Your task to perform on an android device: toggle priority inbox in the gmail app Image 0: 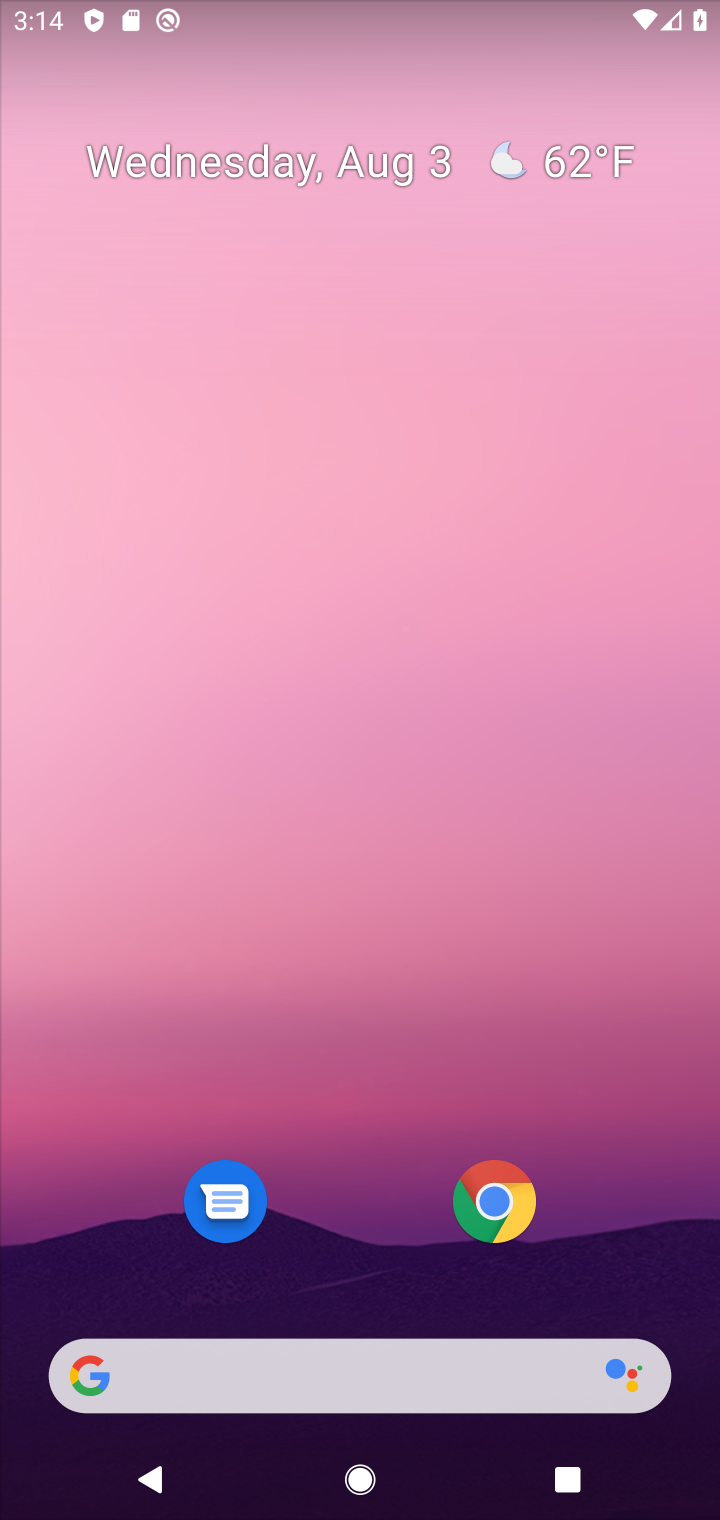
Step 0: drag from (353, 1257) to (307, 306)
Your task to perform on an android device: toggle priority inbox in the gmail app Image 1: 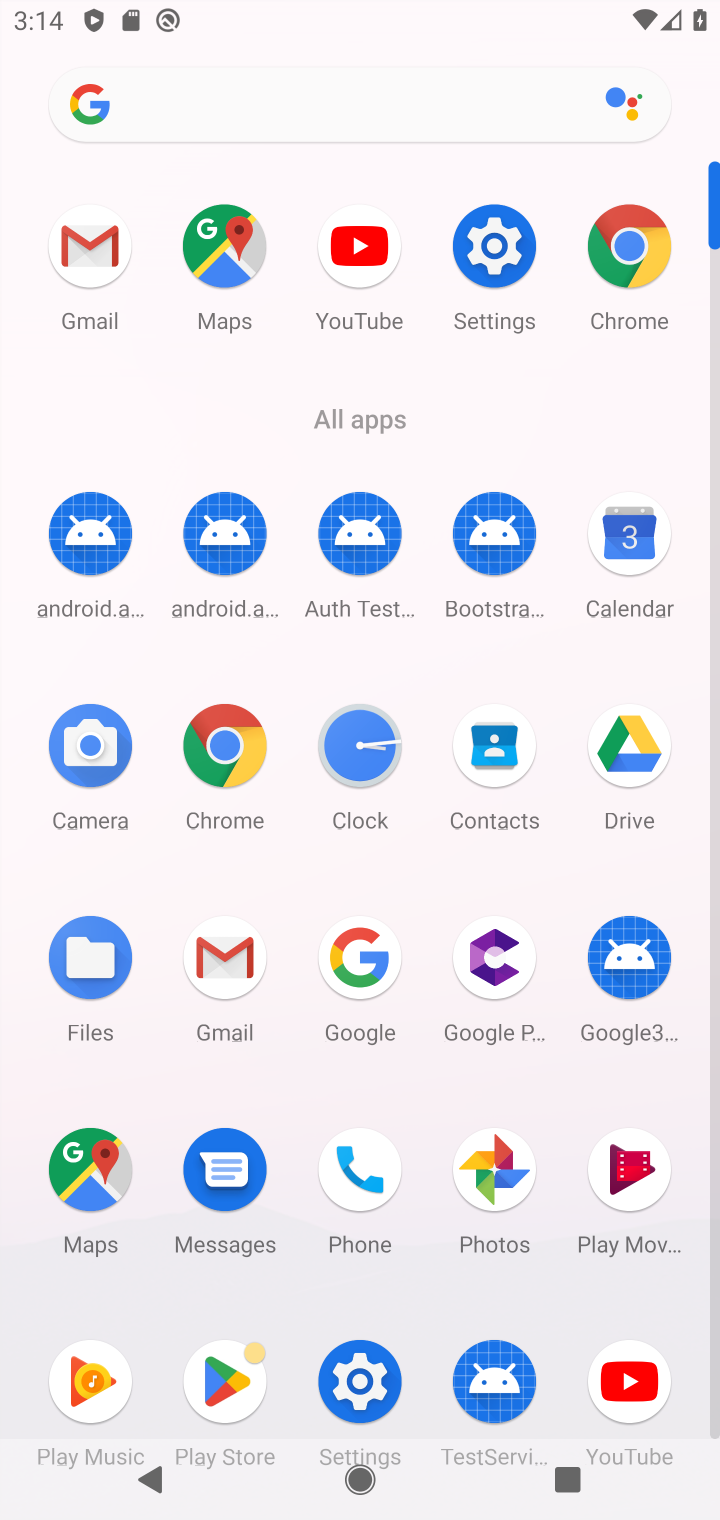
Step 1: click (231, 955)
Your task to perform on an android device: toggle priority inbox in the gmail app Image 2: 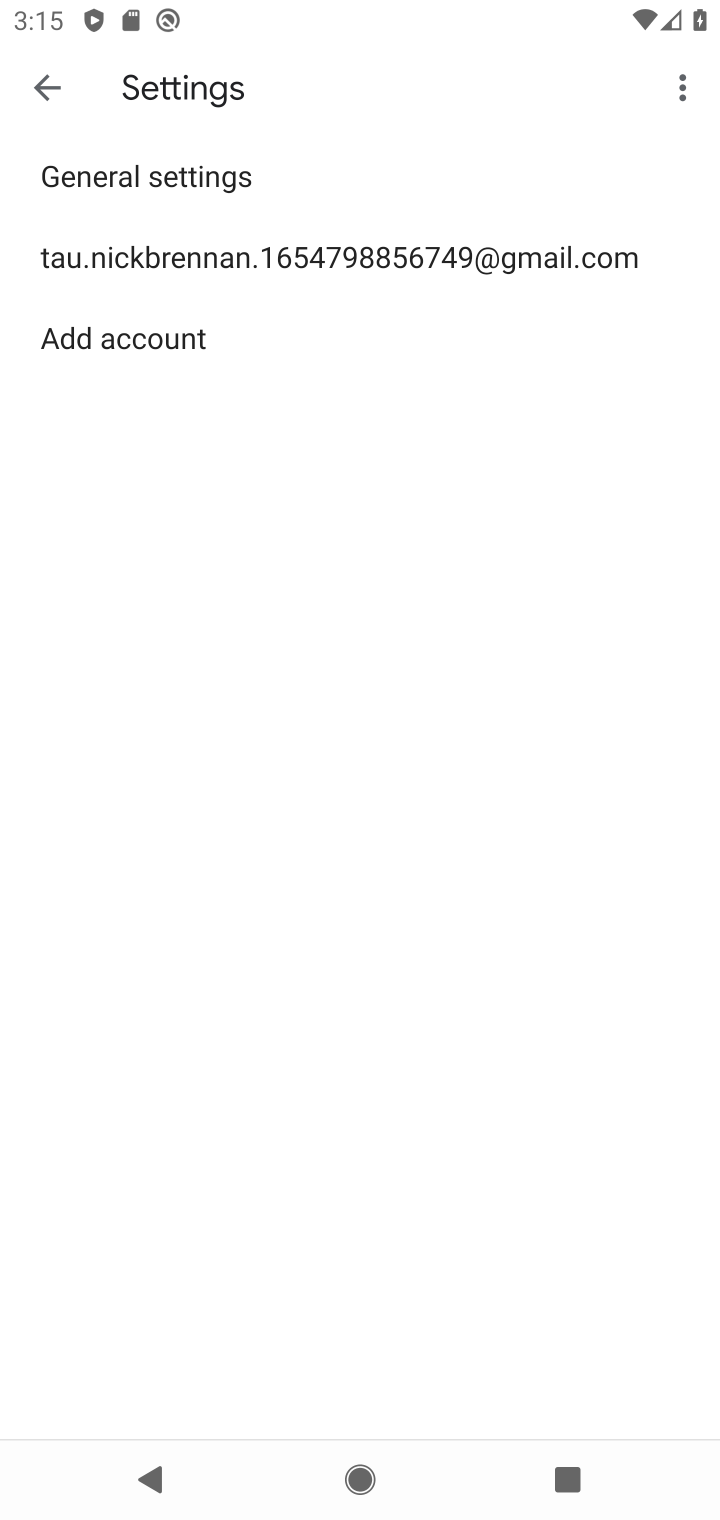
Step 2: click (161, 268)
Your task to perform on an android device: toggle priority inbox in the gmail app Image 3: 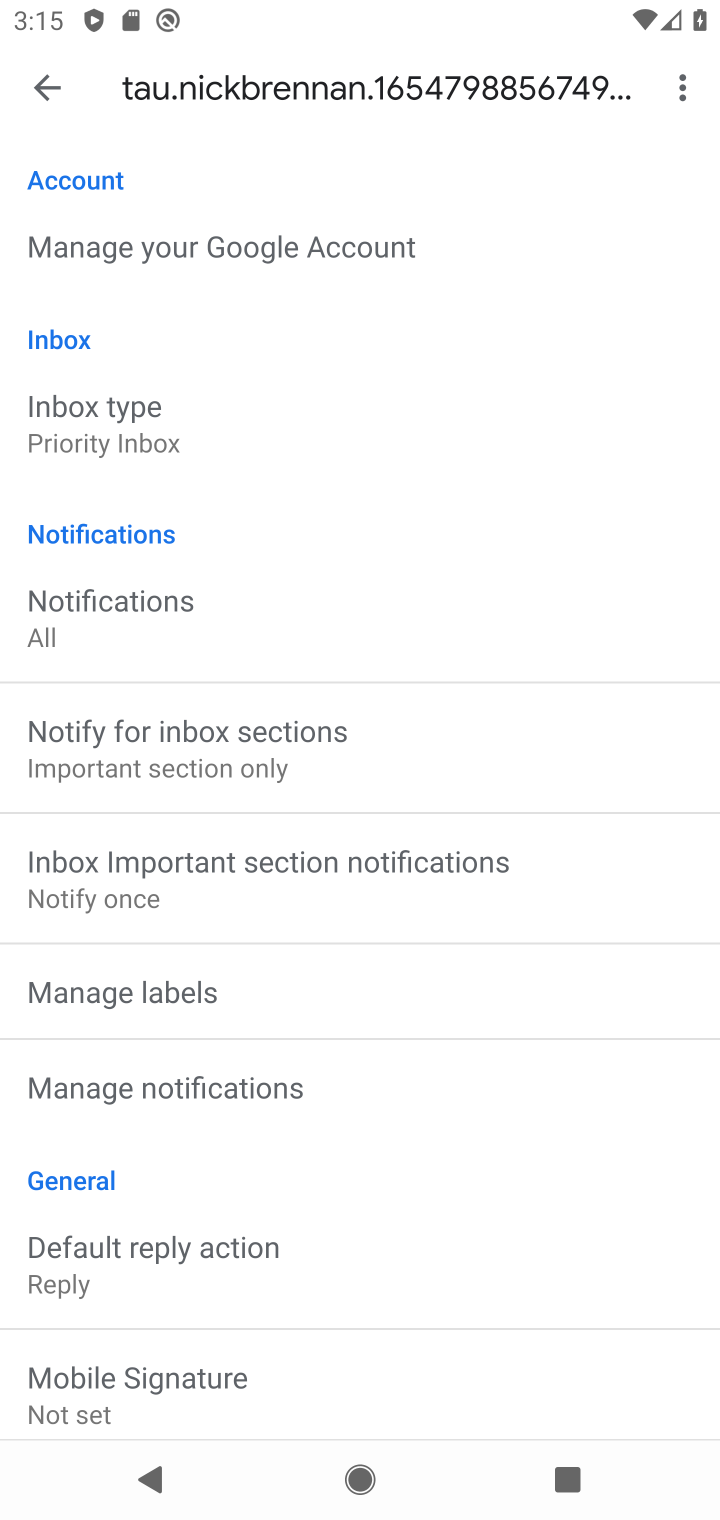
Step 3: click (94, 424)
Your task to perform on an android device: toggle priority inbox in the gmail app Image 4: 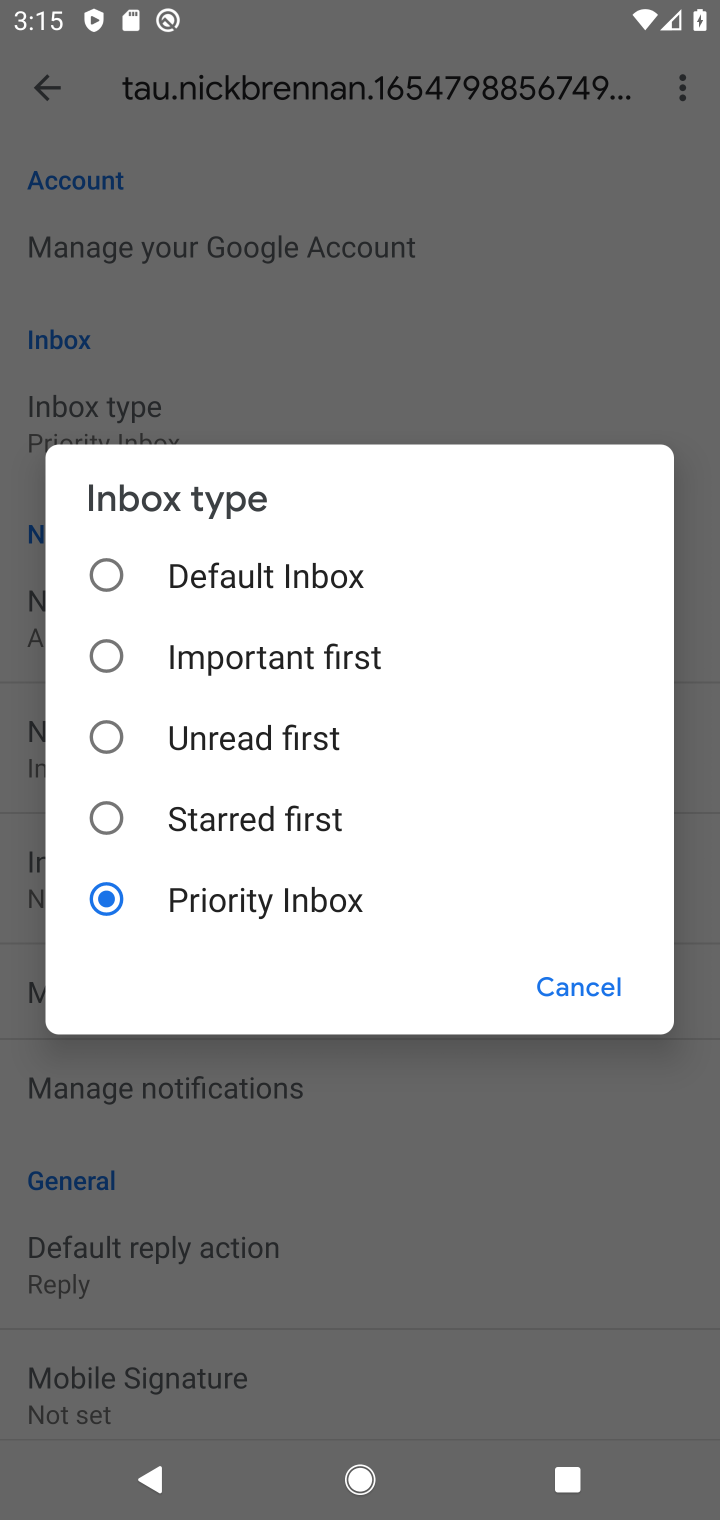
Step 4: click (194, 587)
Your task to perform on an android device: toggle priority inbox in the gmail app Image 5: 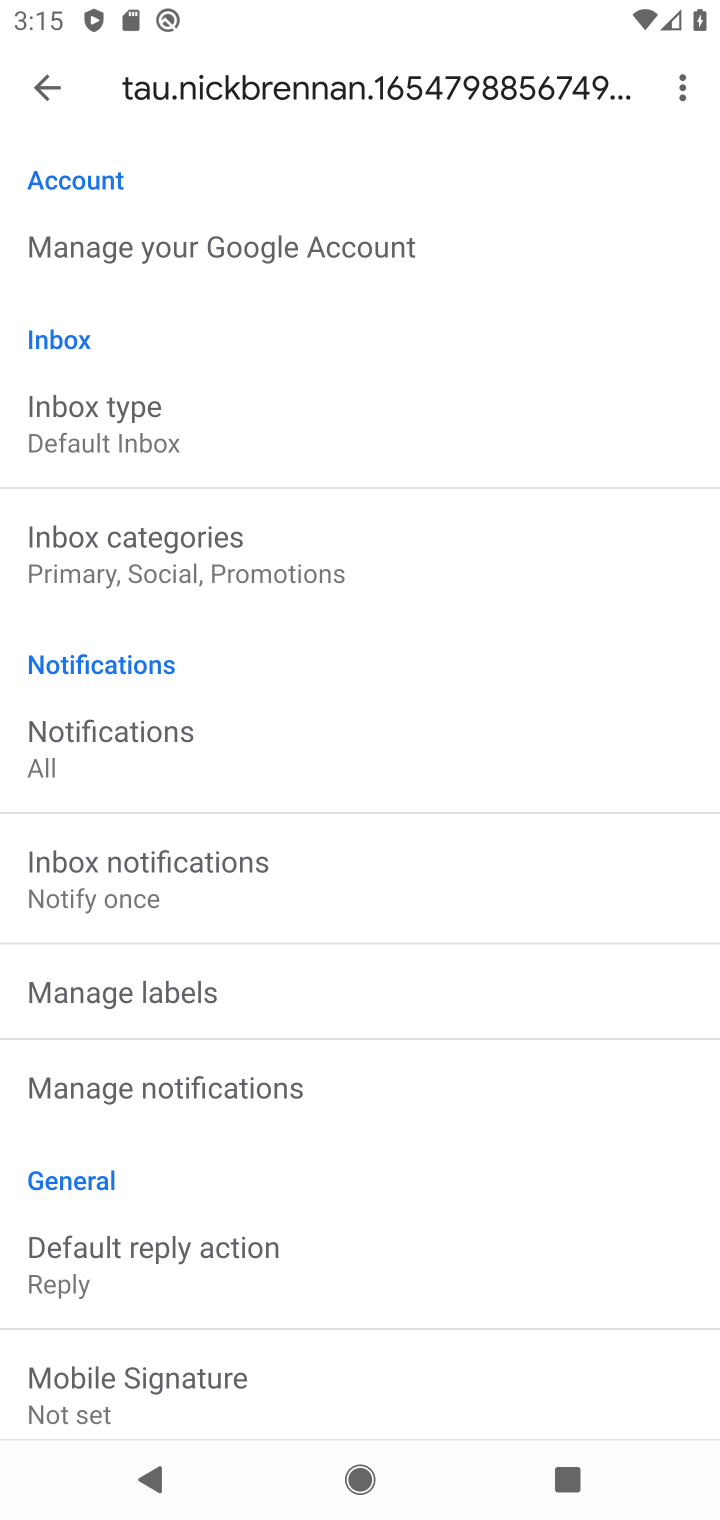
Step 5: task complete